Your task to perform on an android device: clear history in the chrome app Image 0: 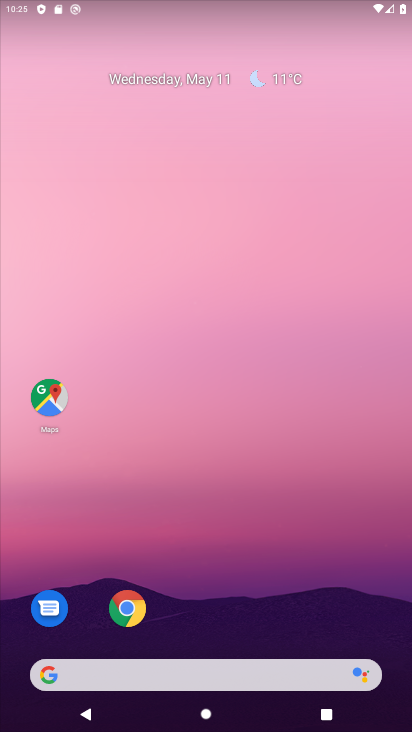
Step 0: click (129, 603)
Your task to perform on an android device: clear history in the chrome app Image 1: 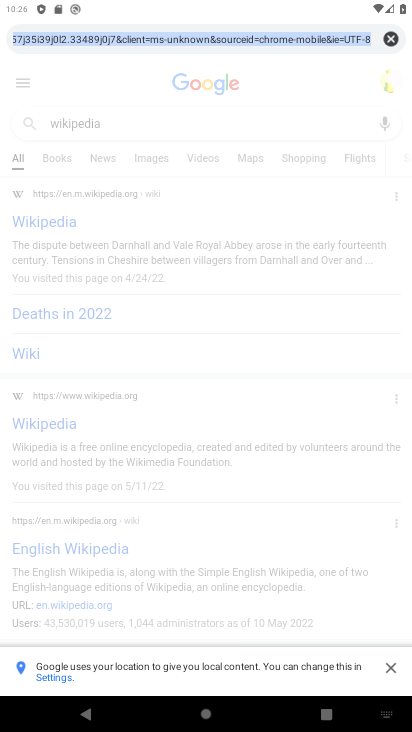
Step 1: click (336, 89)
Your task to perform on an android device: clear history in the chrome app Image 2: 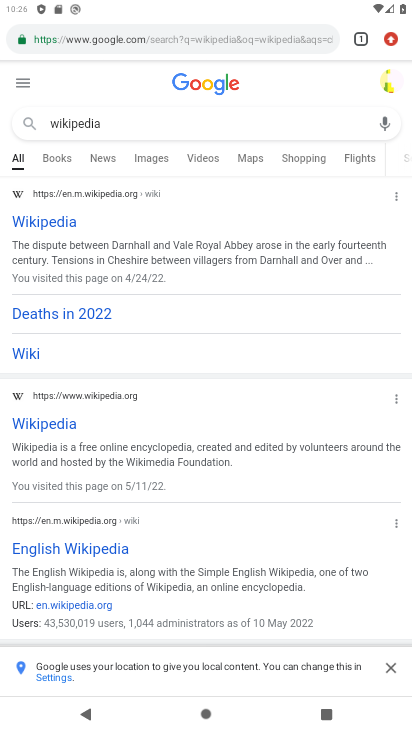
Step 2: click (392, 34)
Your task to perform on an android device: clear history in the chrome app Image 3: 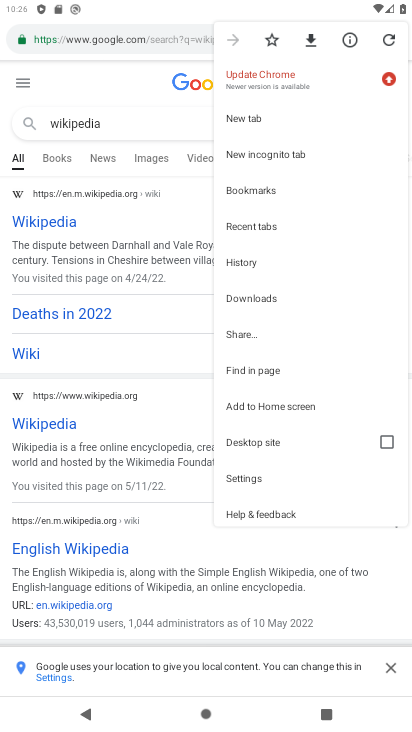
Step 3: click (252, 264)
Your task to perform on an android device: clear history in the chrome app Image 4: 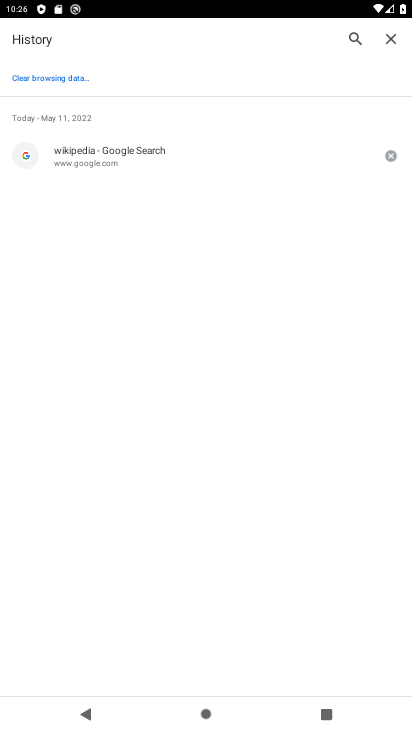
Step 4: click (67, 80)
Your task to perform on an android device: clear history in the chrome app Image 5: 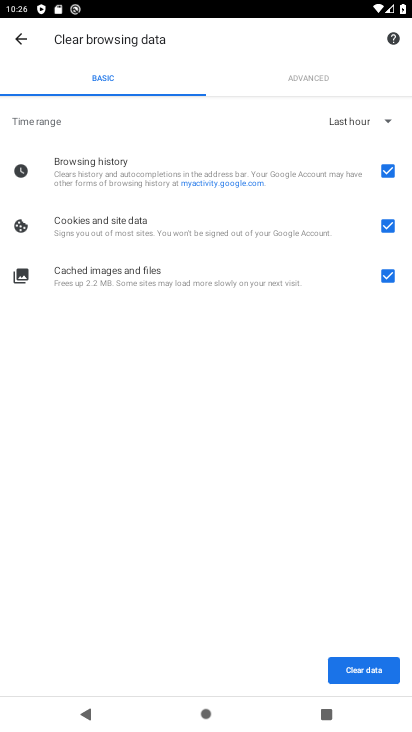
Step 5: click (390, 226)
Your task to perform on an android device: clear history in the chrome app Image 6: 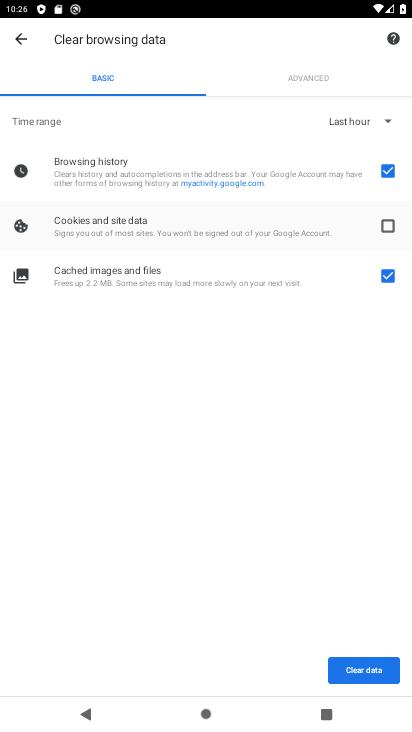
Step 6: click (386, 284)
Your task to perform on an android device: clear history in the chrome app Image 7: 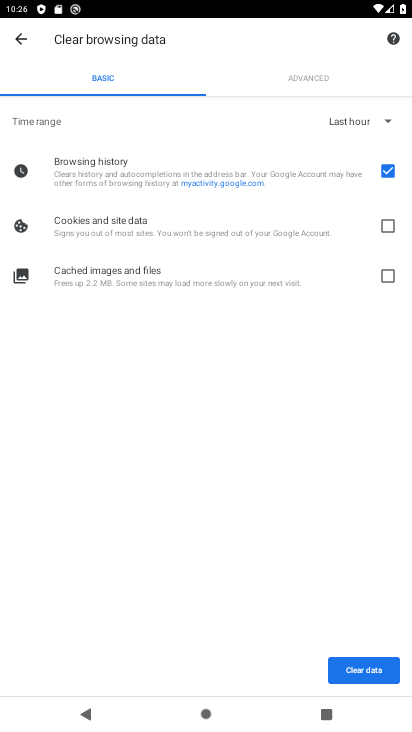
Step 7: click (355, 667)
Your task to perform on an android device: clear history in the chrome app Image 8: 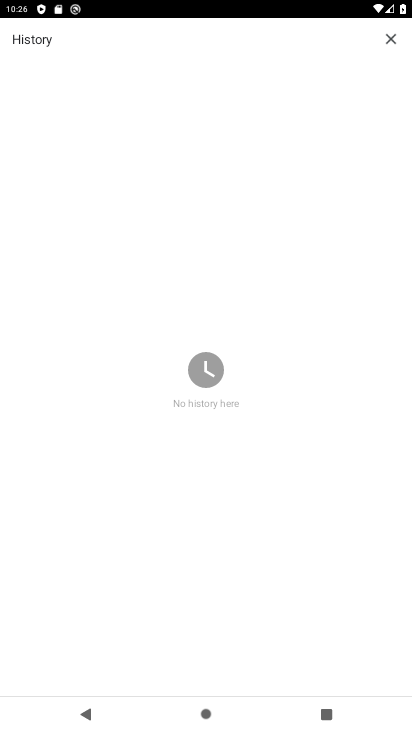
Step 8: task complete